Your task to perform on an android device: Go to privacy settings Image 0: 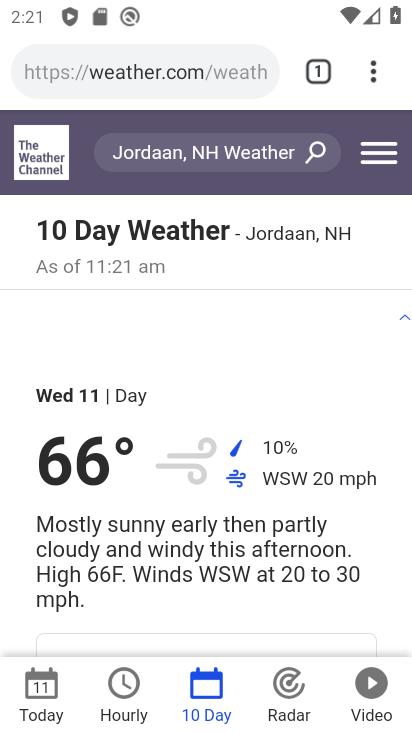
Step 0: press home button
Your task to perform on an android device: Go to privacy settings Image 1: 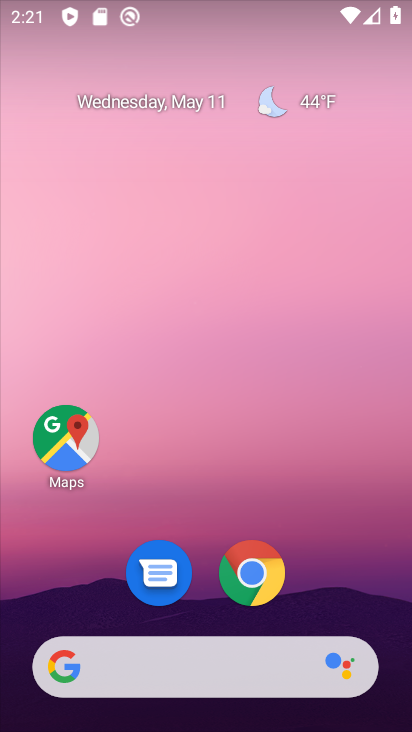
Step 1: click (262, 562)
Your task to perform on an android device: Go to privacy settings Image 2: 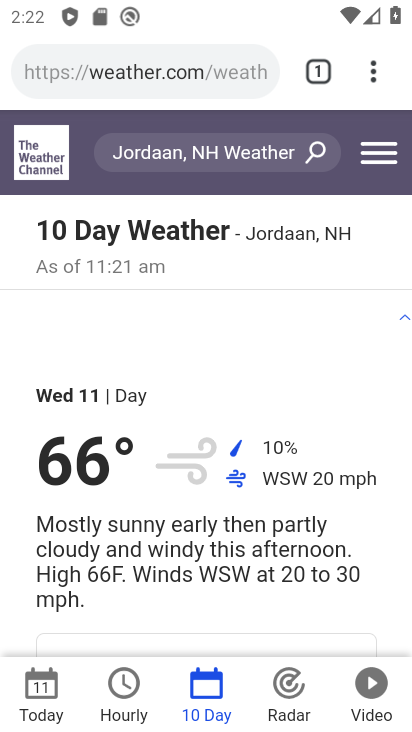
Step 2: drag from (365, 79) to (267, 573)
Your task to perform on an android device: Go to privacy settings Image 3: 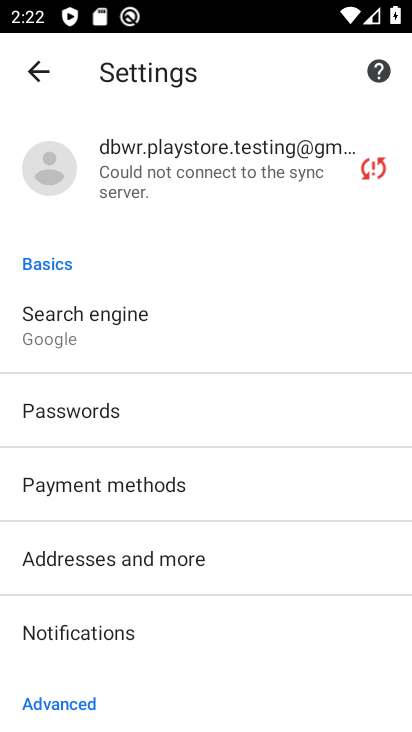
Step 3: drag from (151, 629) to (295, 194)
Your task to perform on an android device: Go to privacy settings Image 4: 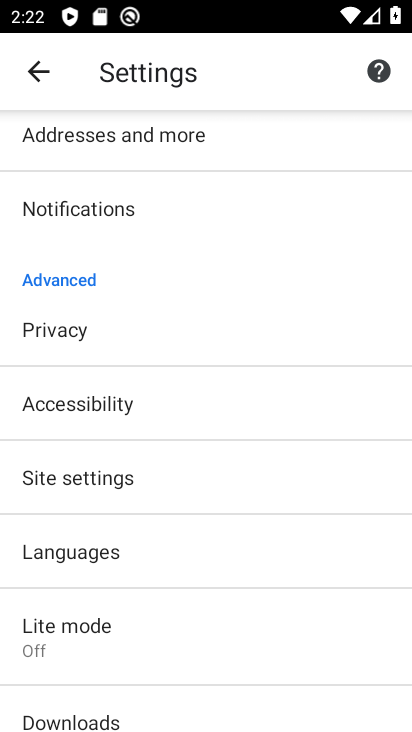
Step 4: drag from (143, 668) to (263, 323)
Your task to perform on an android device: Go to privacy settings Image 5: 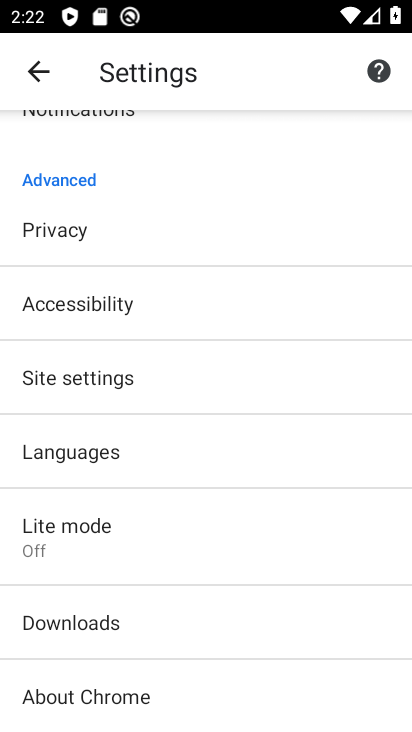
Step 5: drag from (135, 674) to (231, 336)
Your task to perform on an android device: Go to privacy settings Image 6: 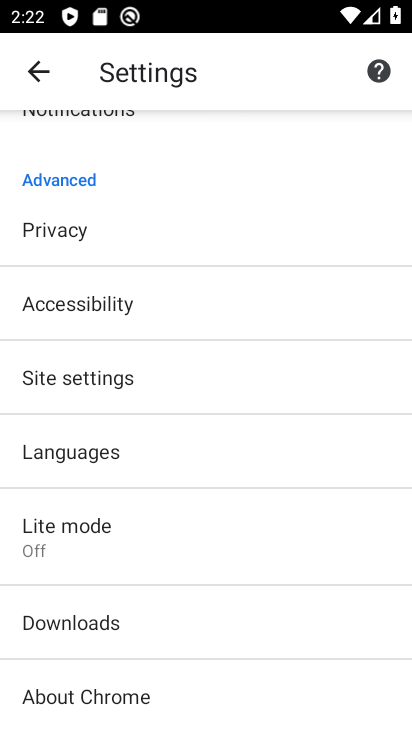
Step 6: click (170, 222)
Your task to perform on an android device: Go to privacy settings Image 7: 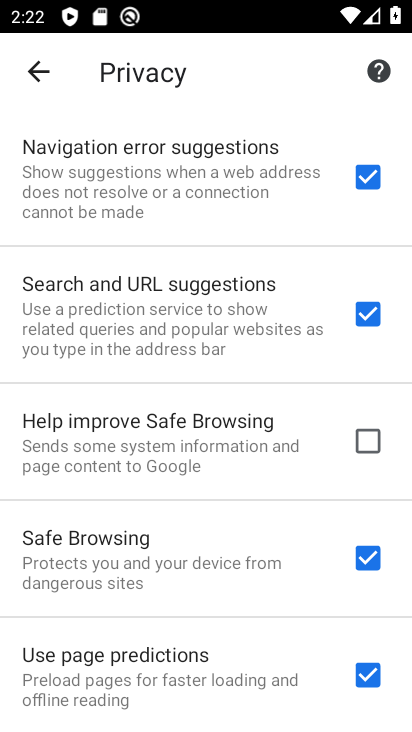
Step 7: task complete